Your task to perform on an android device: turn off sleep mode Image 0: 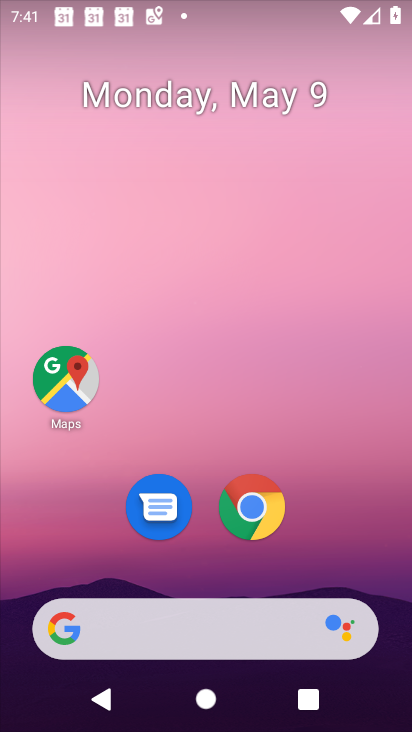
Step 0: drag from (278, 663) to (276, 244)
Your task to perform on an android device: turn off sleep mode Image 1: 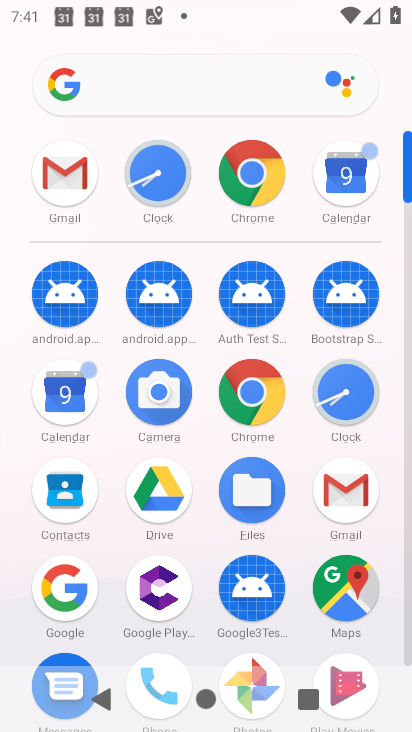
Step 1: drag from (198, 518) to (183, 351)
Your task to perform on an android device: turn off sleep mode Image 2: 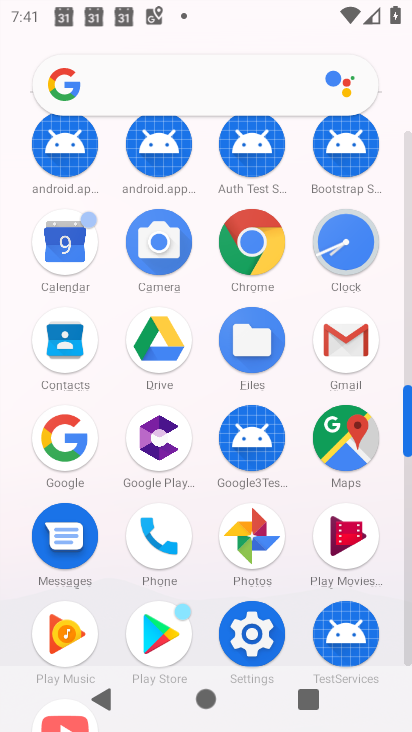
Step 2: click (266, 624)
Your task to perform on an android device: turn off sleep mode Image 3: 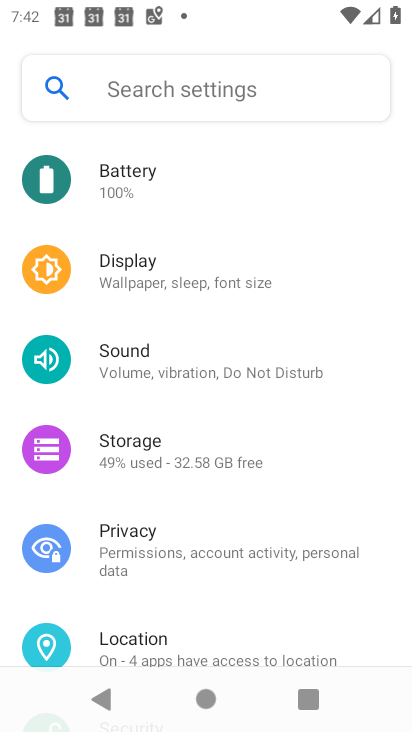
Step 3: click (147, 81)
Your task to perform on an android device: turn off sleep mode Image 4: 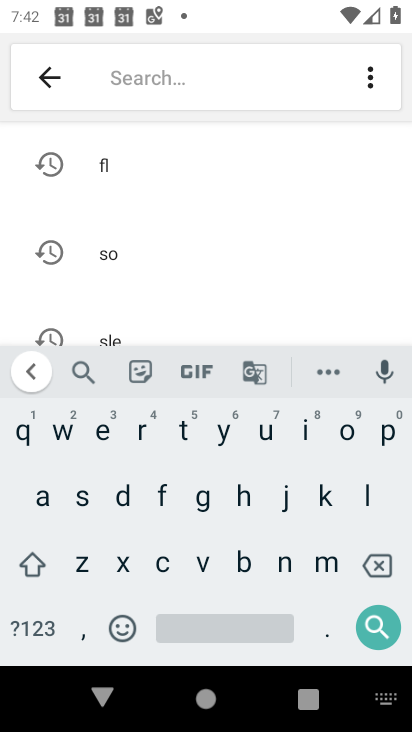
Step 4: click (116, 330)
Your task to perform on an android device: turn off sleep mode Image 5: 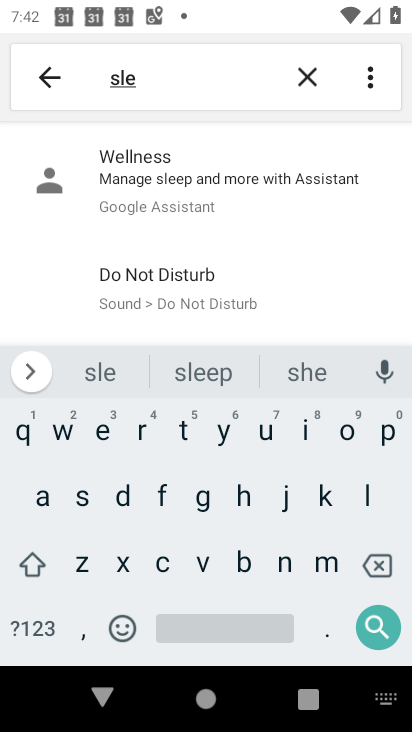
Step 5: click (187, 278)
Your task to perform on an android device: turn off sleep mode Image 6: 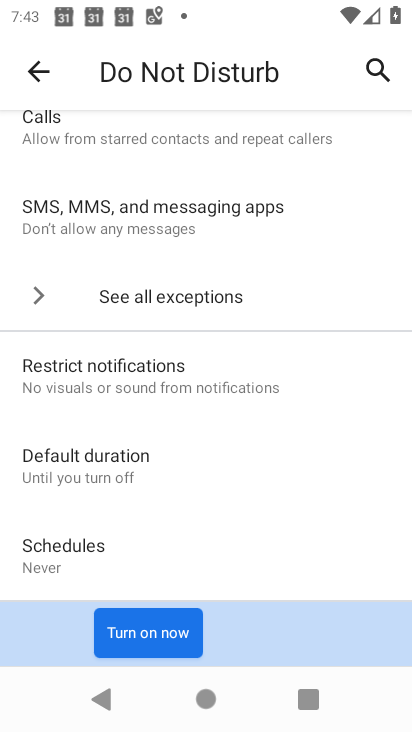
Step 6: click (140, 648)
Your task to perform on an android device: turn off sleep mode Image 7: 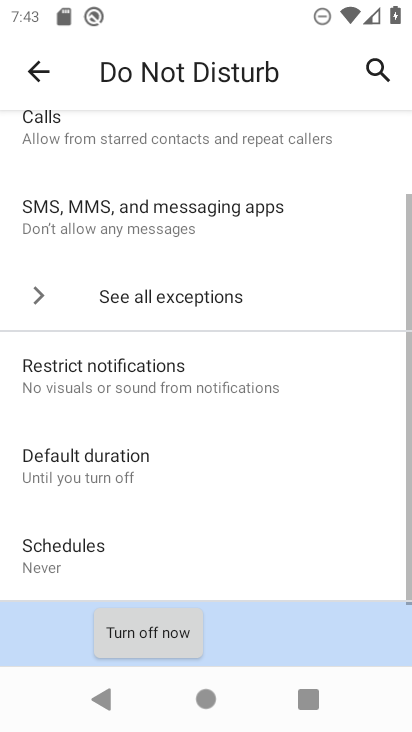
Step 7: click (145, 635)
Your task to perform on an android device: turn off sleep mode Image 8: 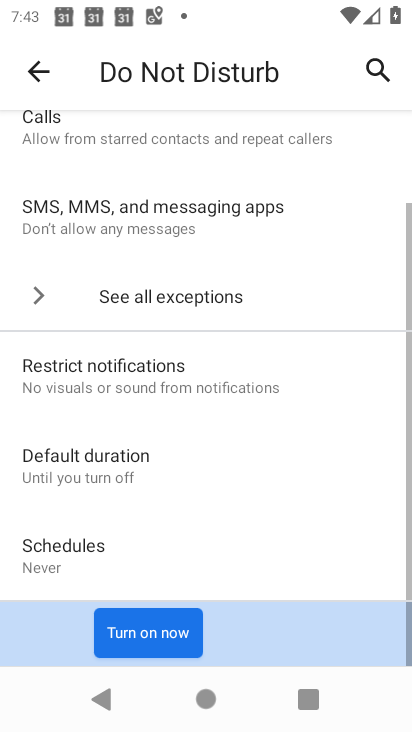
Step 8: task complete